Your task to perform on an android device: Go to calendar. Show me events next week Image 0: 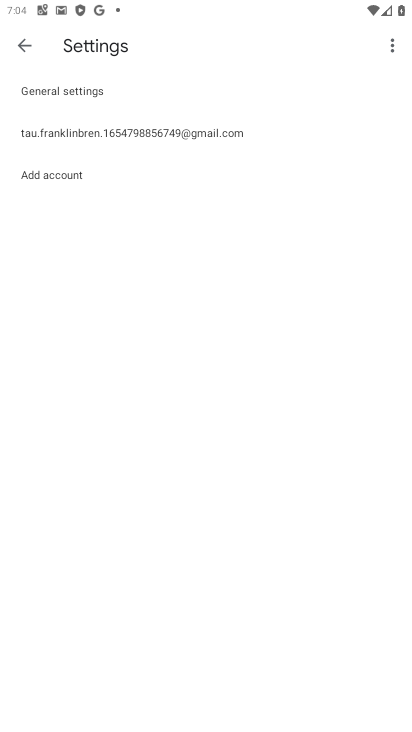
Step 0: press home button
Your task to perform on an android device: Go to calendar. Show me events next week Image 1: 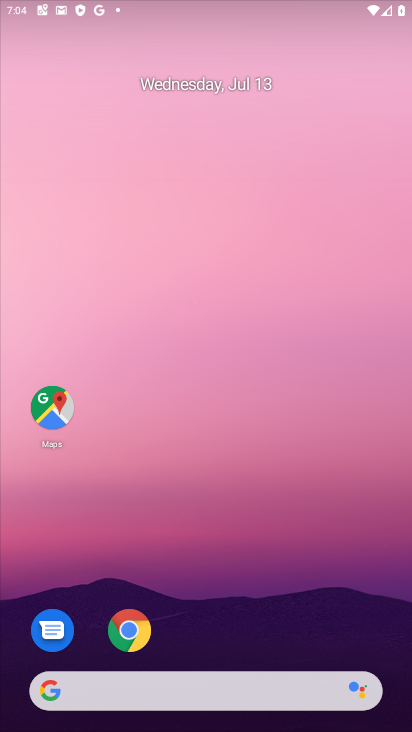
Step 1: drag from (383, 597) to (234, 54)
Your task to perform on an android device: Go to calendar. Show me events next week Image 2: 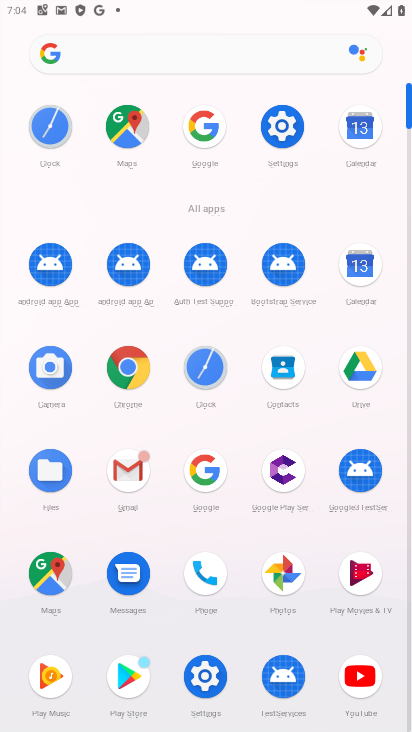
Step 2: click (353, 255)
Your task to perform on an android device: Go to calendar. Show me events next week Image 3: 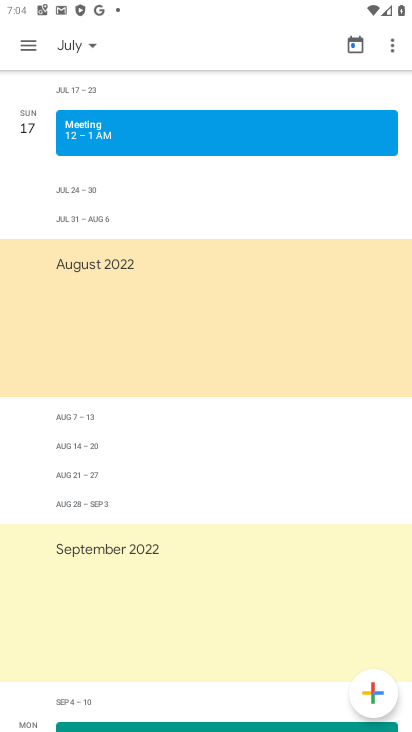
Step 3: click (198, 134)
Your task to perform on an android device: Go to calendar. Show me events next week Image 4: 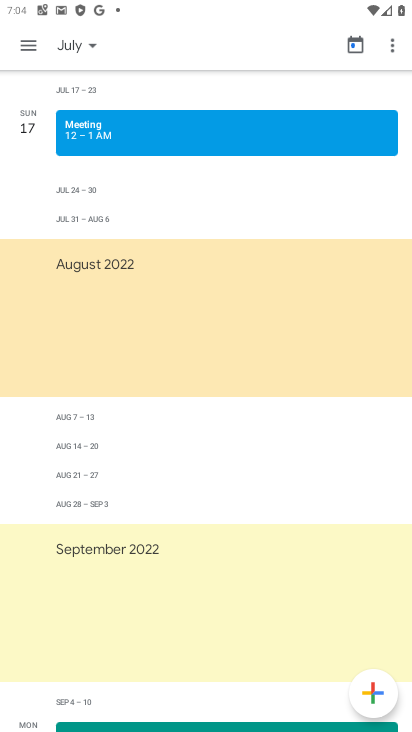
Step 4: click (198, 134)
Your task to perform on an android device: Go to calendar. Show me events next week Image 5: 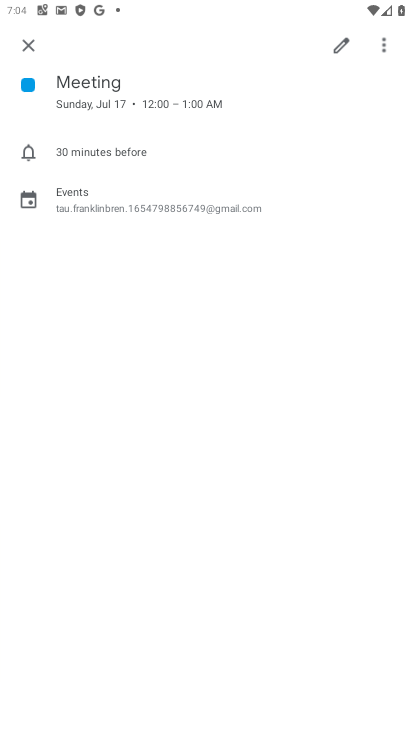
Step 5: task complete